Your task to perform on an android device: open app "VLC for Android" (install if not already installed) Image 0: 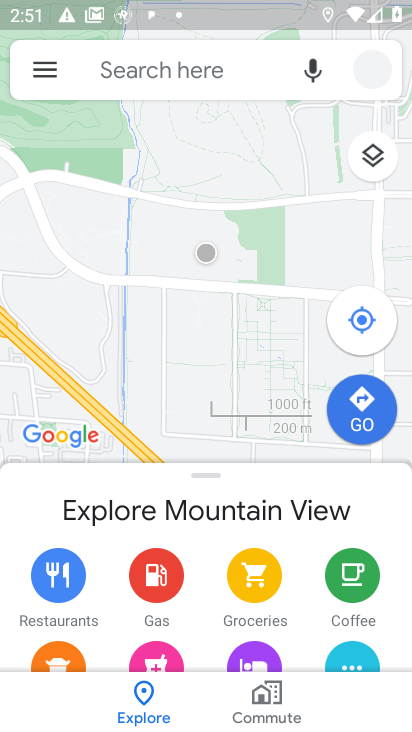
Step 0: press home button
Your task to perform on an android device: open app "VLC for Android" (install if not already installed) Image 1: 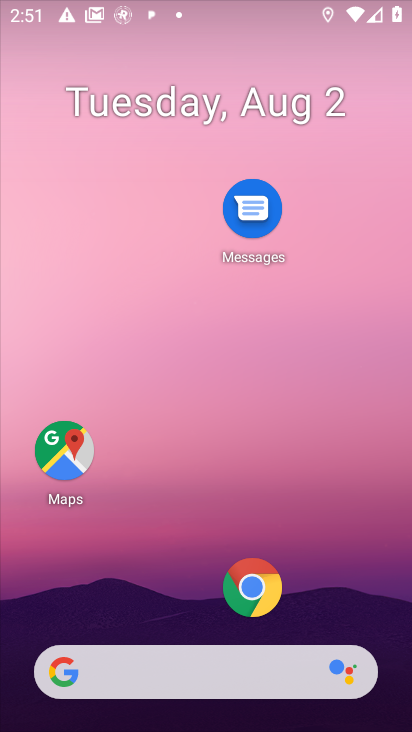
Step 1: drag from (172, 585) to (177, 177)
Your task to perform on an android device: open app "VLC for Android" (install if not already installed) Image 2: 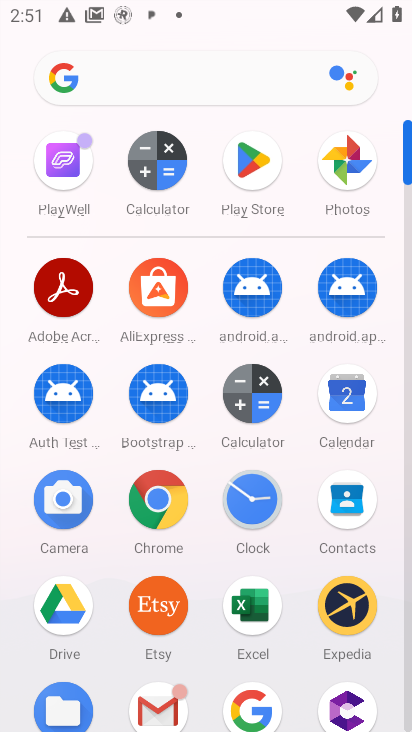
Step 2: click (230, 156)
Your task to perform on an android device: open app "VLC for Android" (install if not already installed) Image 3: 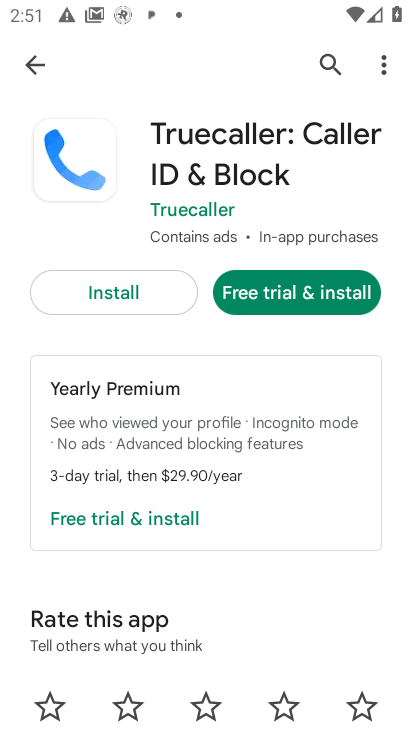
Step 3: click (339, 60)
Your task to perform on an android device: open app "VLC for Android" (install if not already installed) Image 4: 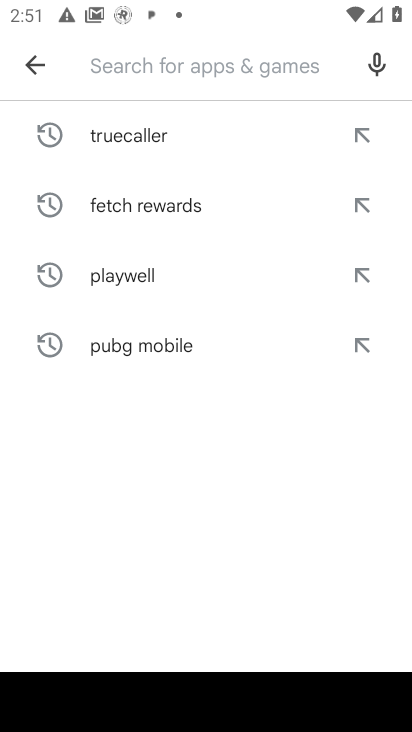
Step 4: type "VLC for Android"
Your task to perform on an android device: open app "VLC for Android" (install if not already installed) Image 5: 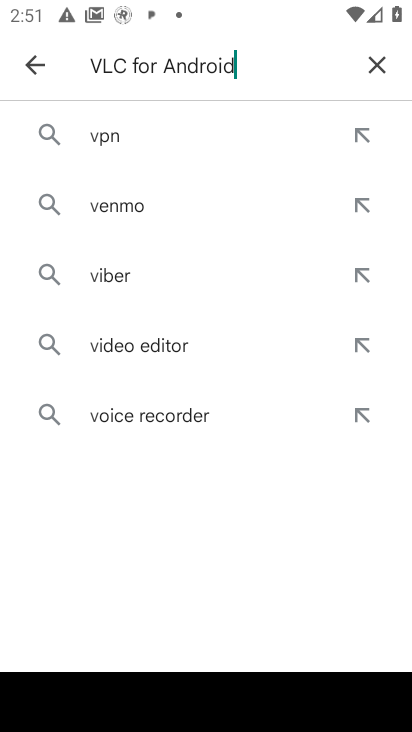
Step 5: type ""
Your task to perform on an android device: open app "VLC for Android" (install if not already installed) Image 6: 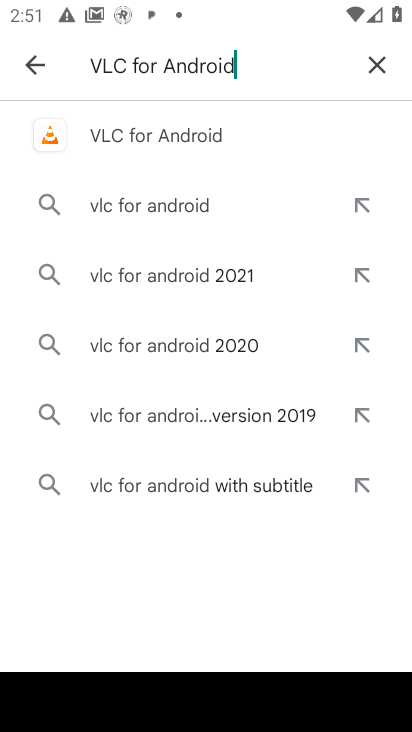
Step 6: click (154, 139)
Your task to perform on an android device: open app "VLC for Android" (install if not already installed) Image 7: 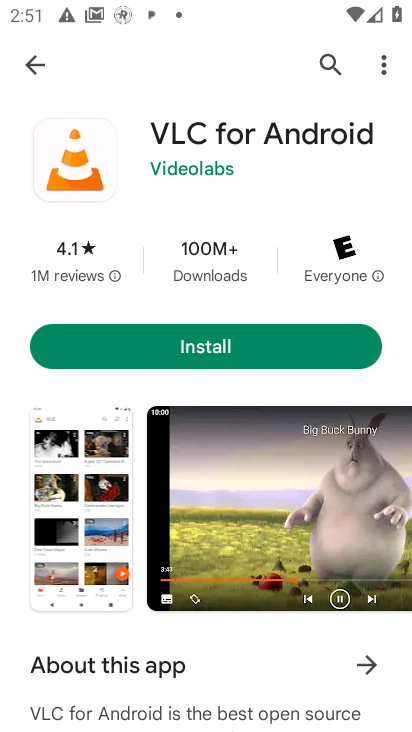
Step 7: click (197, 348)
Your task to perform on an android device: open app "VLC for Android" (install if not already installed) Image 8: 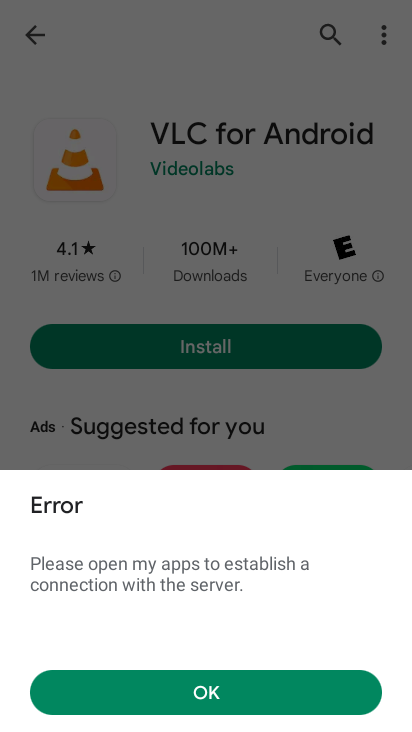
Step 8: task complete